Your task to perform on an android device: Open location settings Image 0: 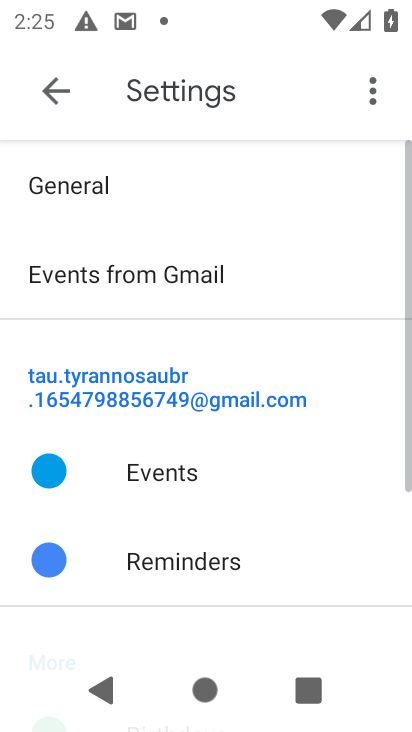
Step 0: drag from (355, 590) to (252, 227)
Your task to perform on an android device: Open location settings Image 1: 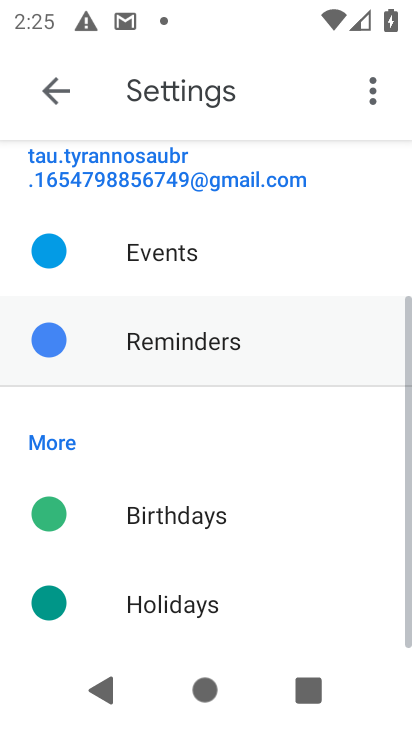
Step 1: drag from (317, 426) to (299, 167)
Your task to perform on an android device: Open location settings Image 2: 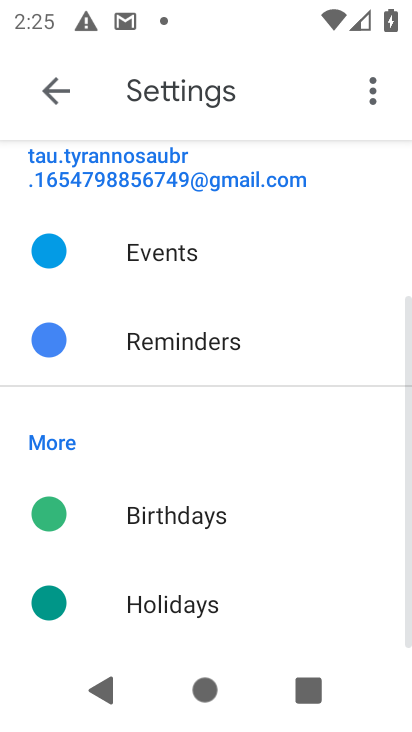
Step 2: click (56, 93)
Your task to perform on an android device: Open location settings Image 3: 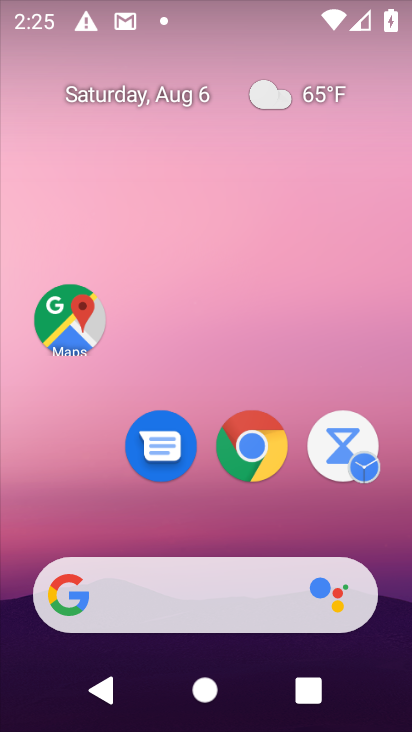
Step 3: drag from (150, 363) to (96, 167)
Your task to perform on an android device: Open location settings Image 4: 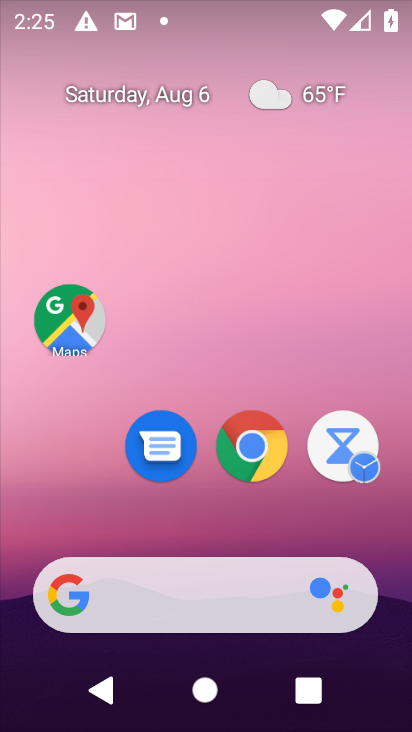
Step 4: drag from (211, 401) to (181, 177)
Your task to perform on an android device: Open location settings Image 5: 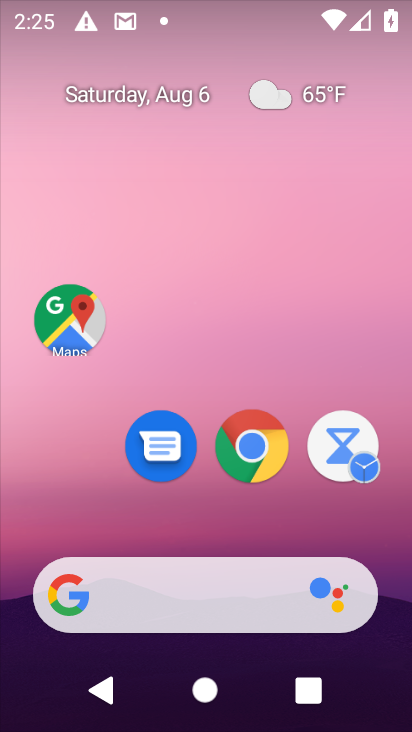
Step 5: drag from (194, 456) to (162, 260)
Your task to perform on an android device: Open location settings Image 6: 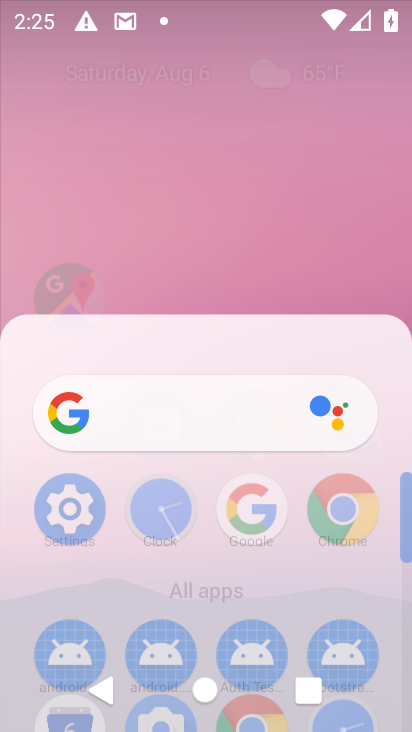
Step 6: drag from (167, 450) to (152, 129)
Your task to perform on an android device: Open location settings Image 7: 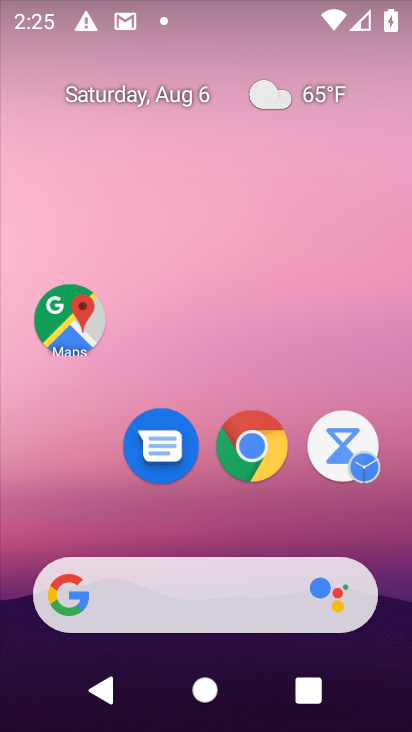
Step 7: drag from (265, 407) to (253, 327)
Your task to perform on an android device: Open location settings Image 8: 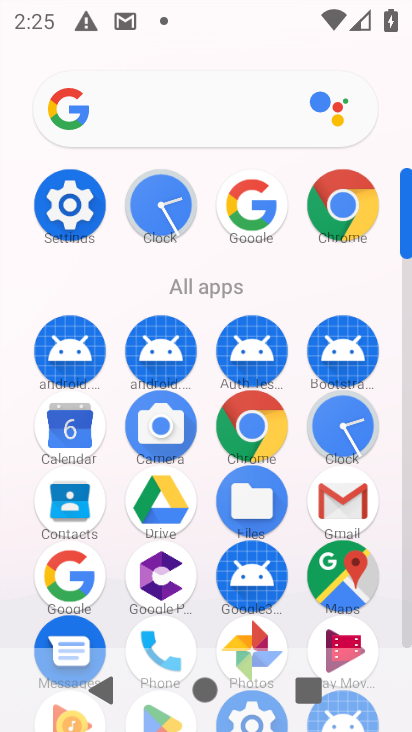
Step 8: drag from (188, 281) to (151, 65)
Your task to perform on an android device: Open location settings Image 9: 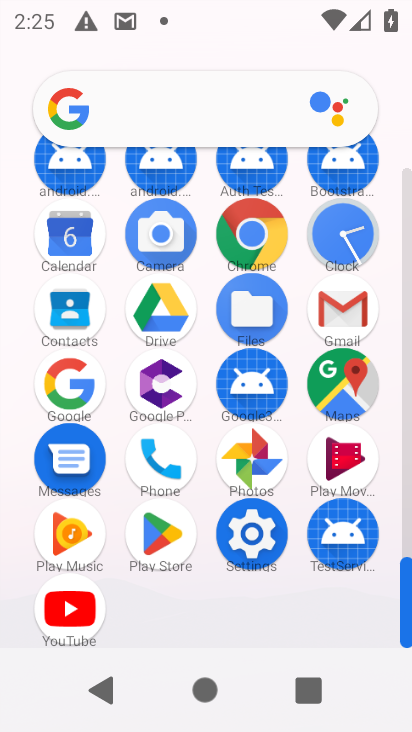
Step 9: click (167, 234)
Your task to perform on an android device: Open location settings Image 10: 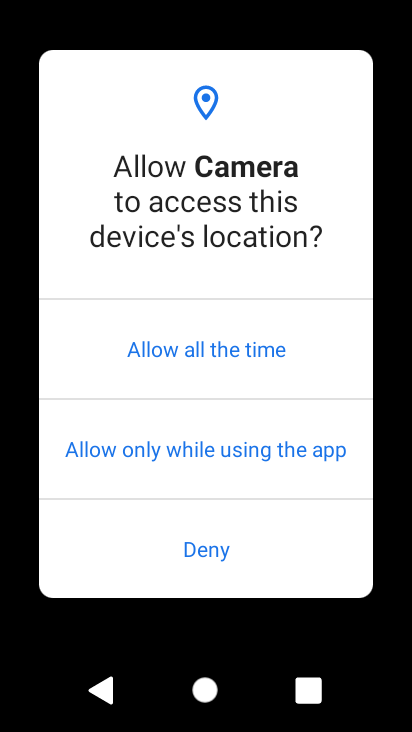
Step 10: press back button
Your task to perform on an android device: Open location settings Image 11: 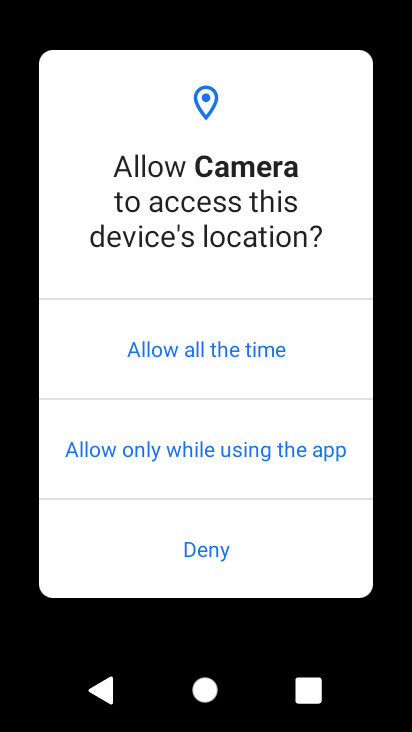
Step 11: click (207, 575)
Your task to perform on an android device: Open location settings Image 12: 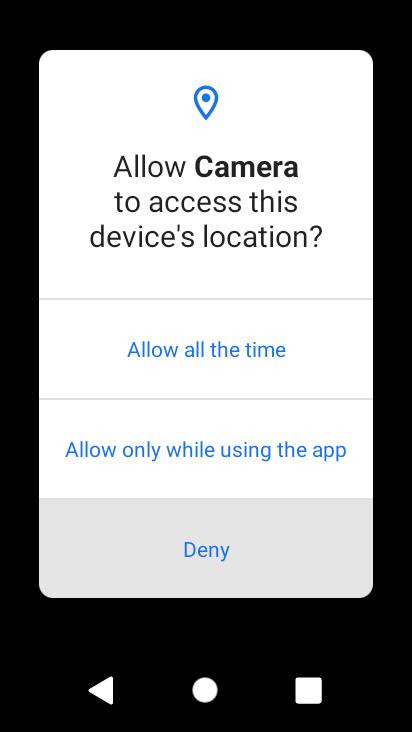
Step 12: click (211, 558)
Your task to perform on an android device: Open location settings Image 13: 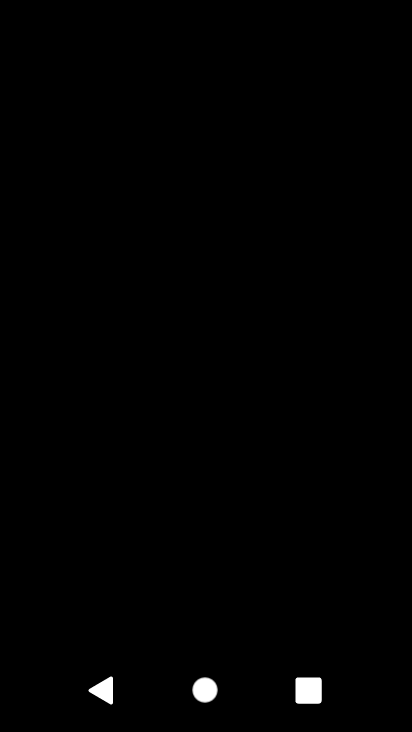
Step 13: click (210, 551)
Your task to perform on an android device: Open location settings Image 14: 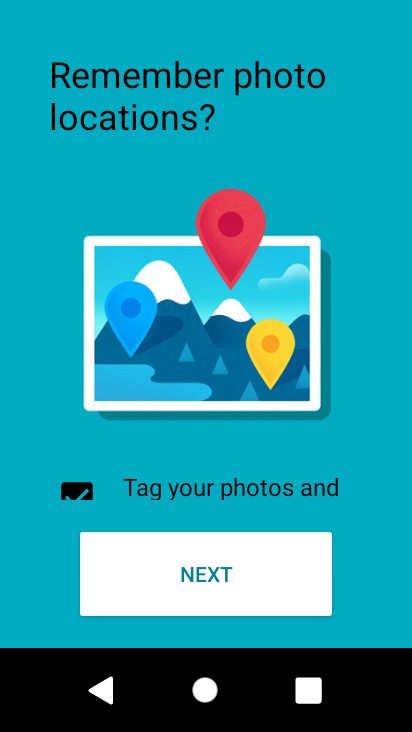
Step 14: press back button
Your task to perform on an android device: Open location settings Image 15: 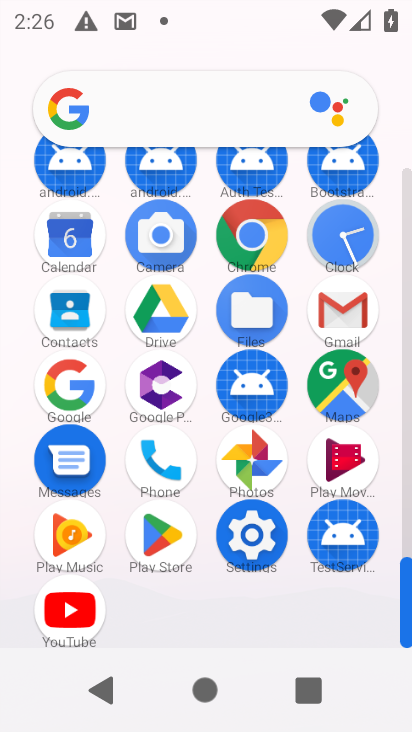
Step 15: click (217, 548)
Your task to perform on an android device: Open location settings Image 16: 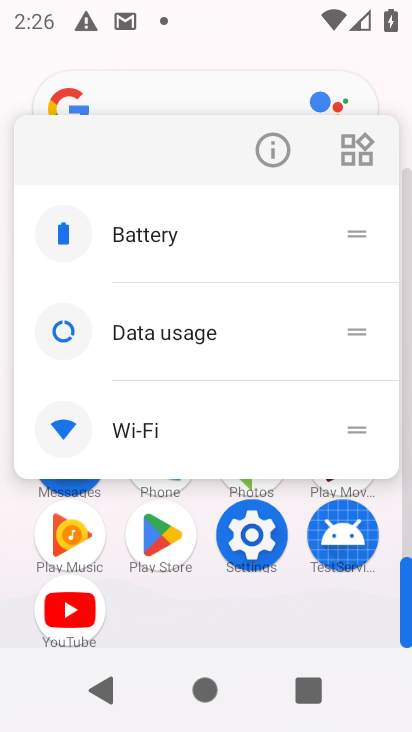
Step 16: click (254, 538)
Your task to perform on an android device: Open location settings Image 17: 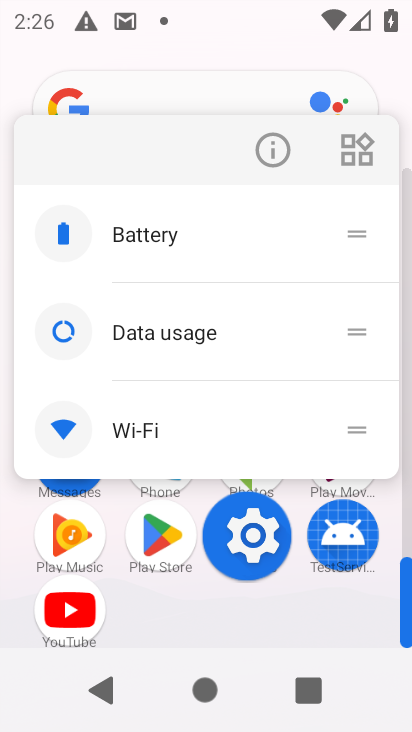
Step 17: click (248, 540)
Your task to perform on an android device: Open location settings Image 18: 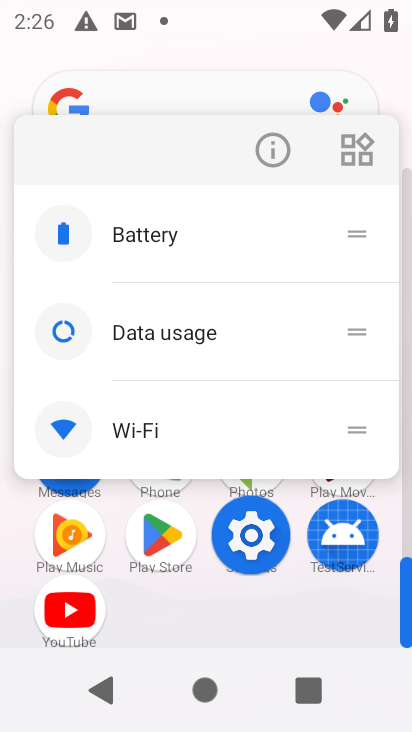
Step 18: click (248, 540)
Your task to perform on an android device: Open location settings Image 19: 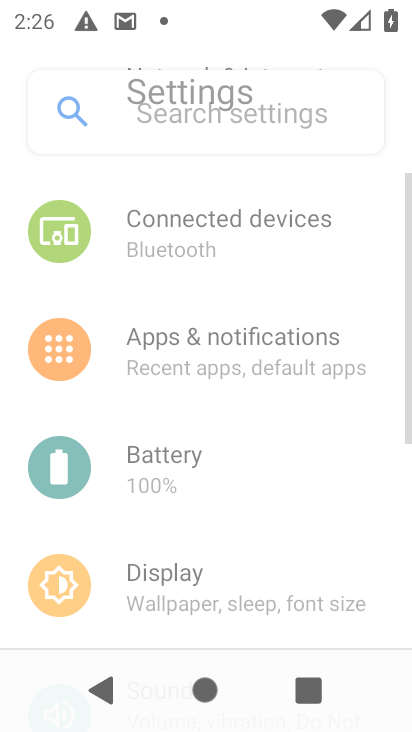
Step 19: click (248, 540)
Your task to perform on an android device: Open location settings Image 20: 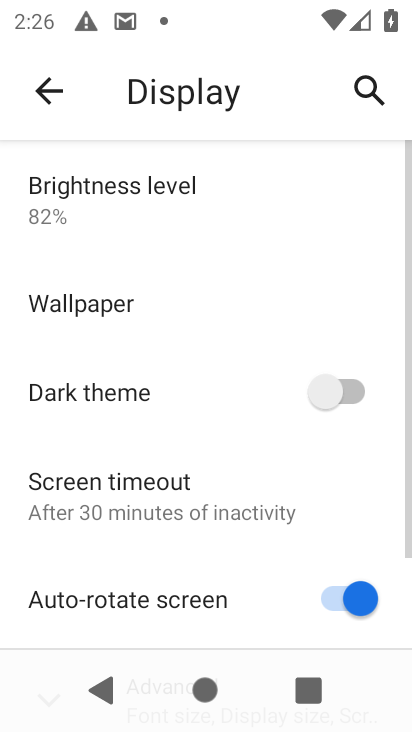
Step 20: click (50, 92)
Your task to perform on an android device: Open location settings Image 21: 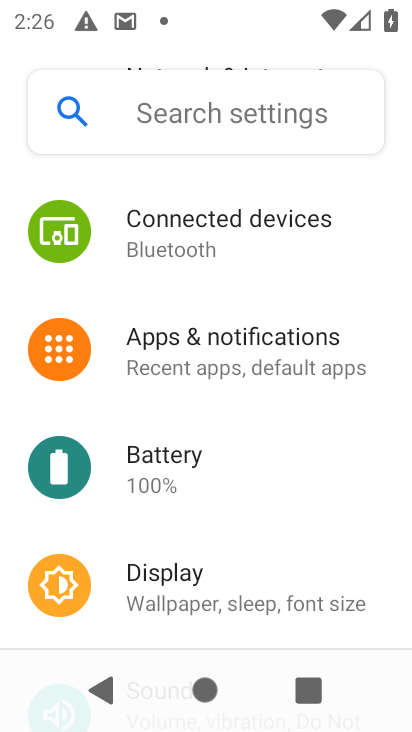
Step 21: drag from (241, 581) to (222, 248)
Your task to perform on an android device: Open location settings Image 22: 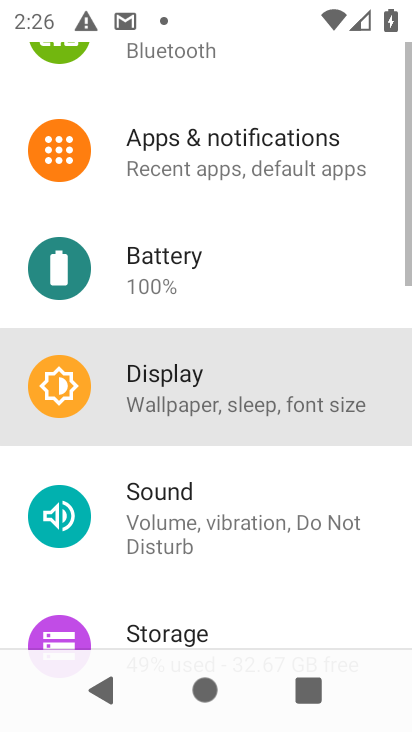
Step 22: drag from (294, 568) to (278, 212)
Your task to perform on an android device: Open location settings Image 23: 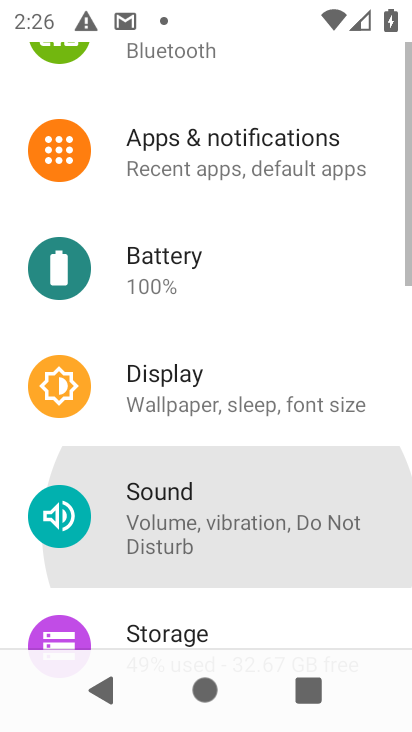
Step 23: drag from (308, 582) to (284, 209)
Your task to perform on an android device: Open location settings Image 24: 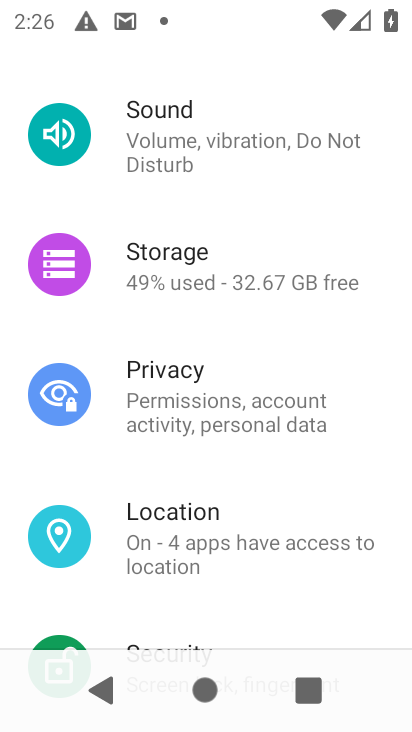
Step 24: click (188, 532)
Your task to perform on an android device: Open location settings Image 25: 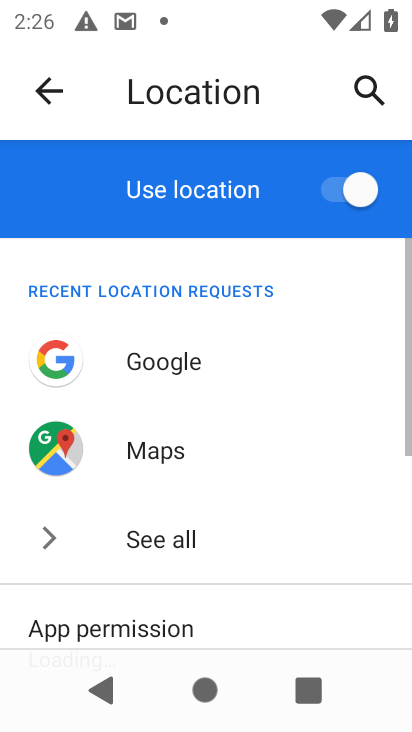
Step 25: task complete